Your task to perform on an android device: open app "Google Maps" Image 0: 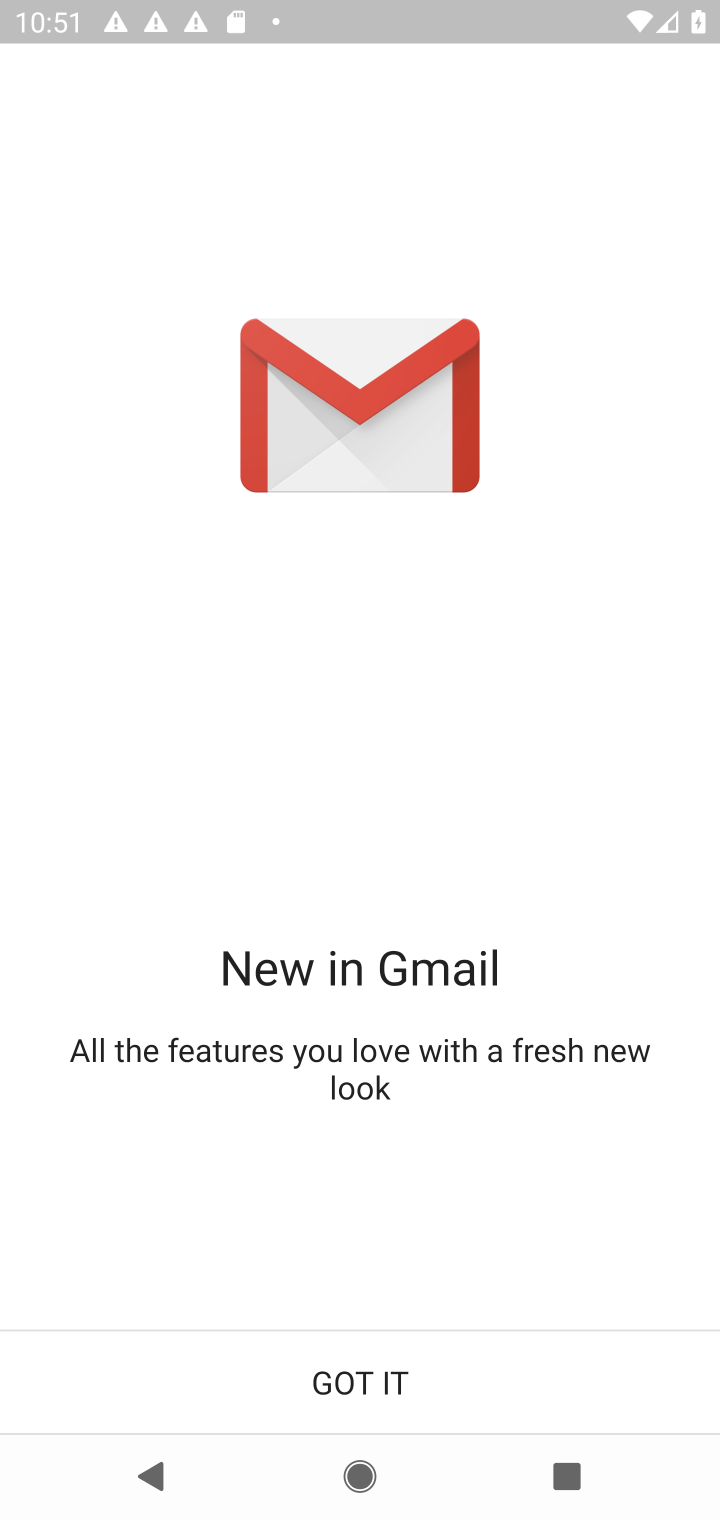
Step 0: press home button
Your task to perform on an android device: open app "Google Maps" Image 1: 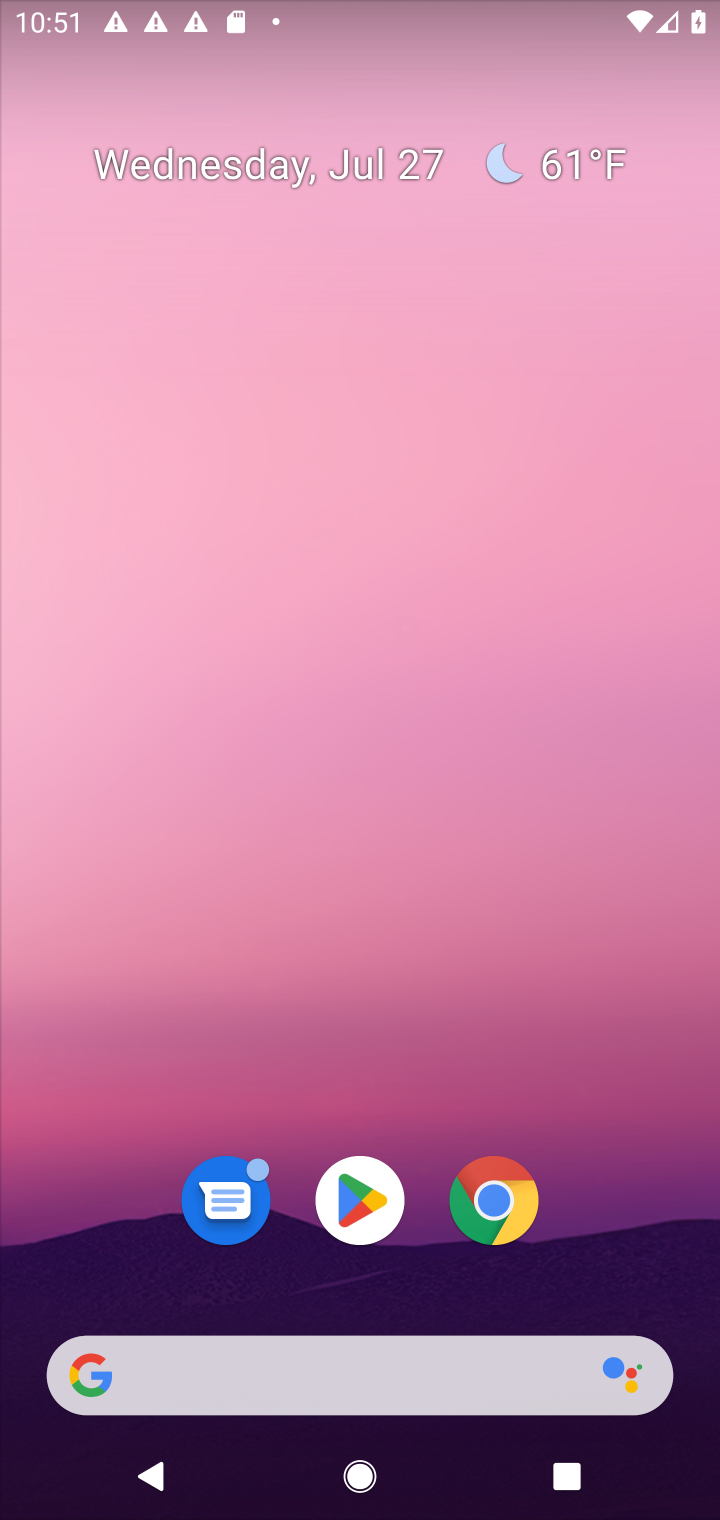
Step 1: drag from (576, 1240) to (578, 20)
Your task to perform on an android device: open app "Google Maps" Image 2: 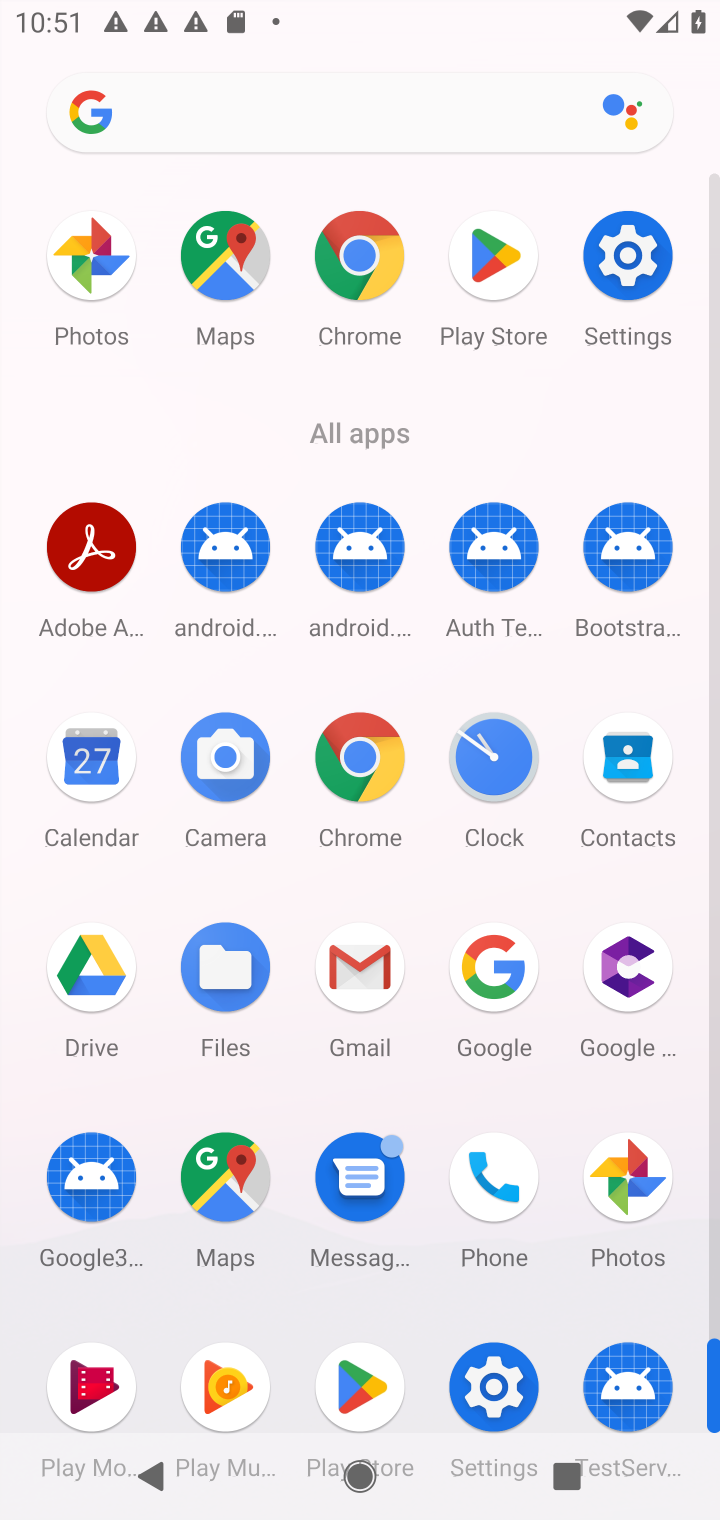
Step 2: click (207, 1267)
Your task to perform on an android device: open app "Google Maps" Image 3: 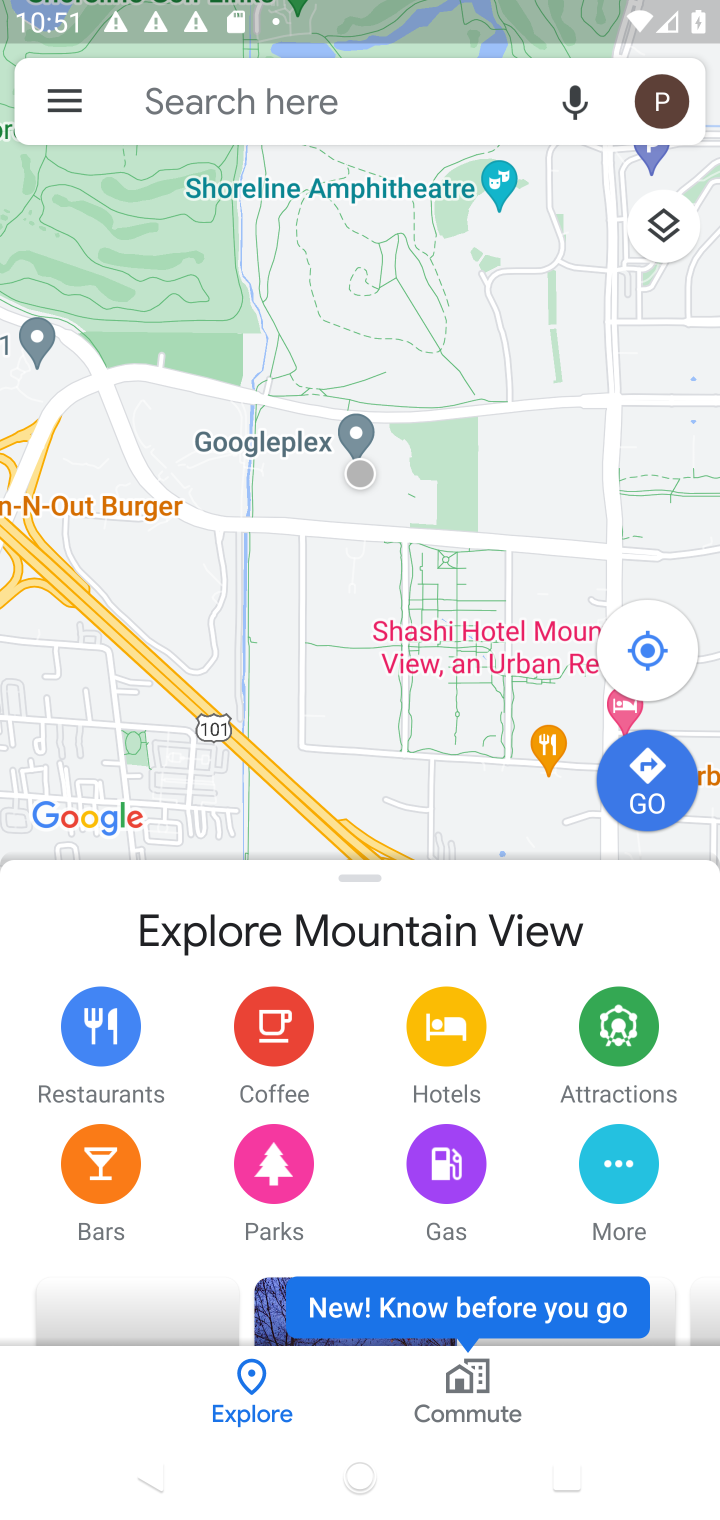
Step 3: task complete